Your task to perform on an android device: read, delete, or share a saved page in the chrome app Image 0: 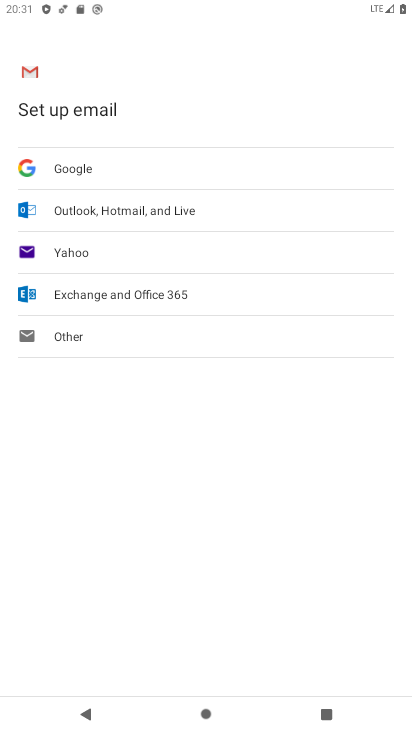
Step 0: press home button
Your task to perform on an android device: read, delete, or share a saved page in the chrome app Image 1: 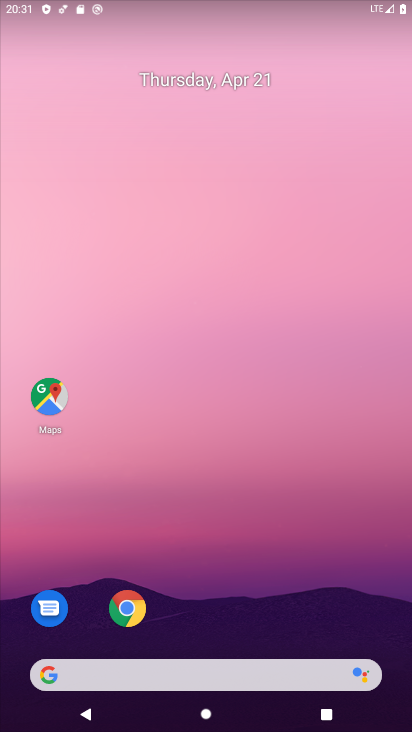
Step 1: click (126, 613)
Your task to perform on an android device: read, delete, or share a saved page in the chrome app Image 2: 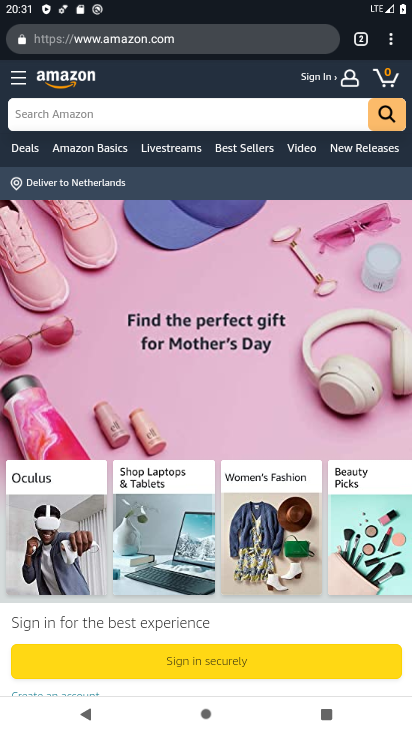
Step 2: click (399, 47)
Your task to perform on an android device: read, delete, or share a saved page in the chrome app Image 3: 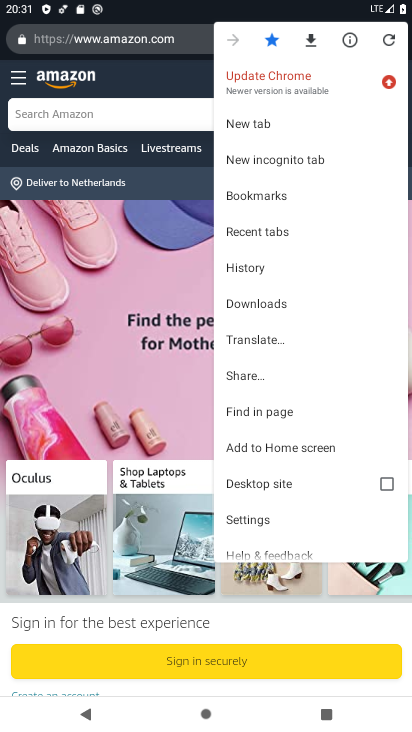
Step 3: click (275, 307)
Your task to perform on an android device: read, delete, or share a saved page in the chrome app Image 4: 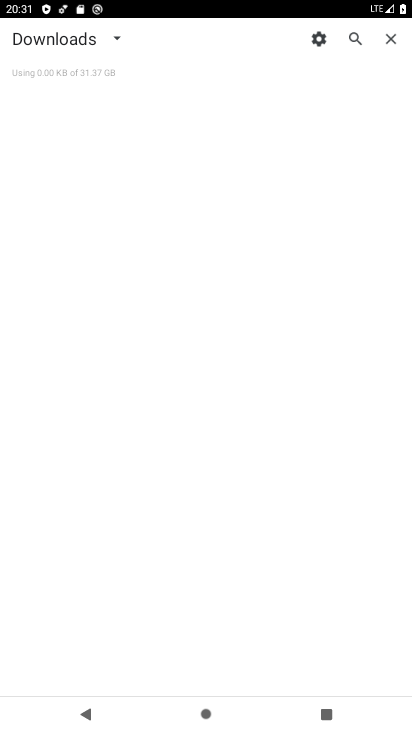
Step 4: task complete